Your task to perform on an android device: change the clock style Image 0: 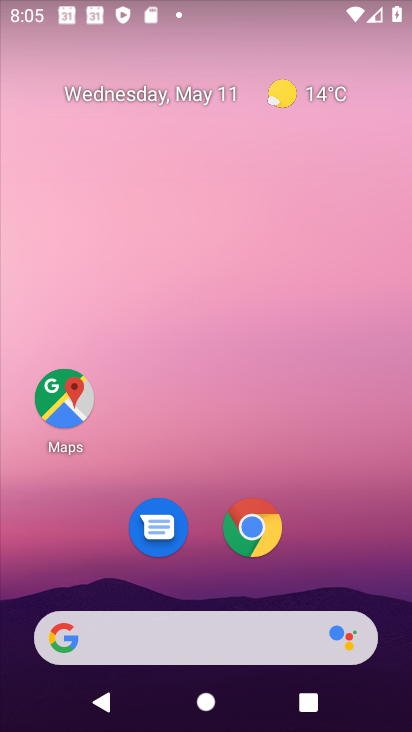
Step 0: drag from (204, 578) to (194, 42)
Your task to perform on an android device: change the clock style Image 1: 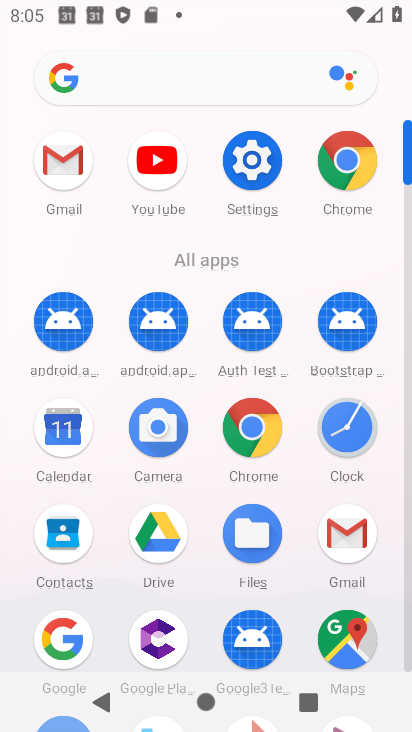
Step 1: click (345, 419)
Your task to perform on an android device: change the clock style Image 2: 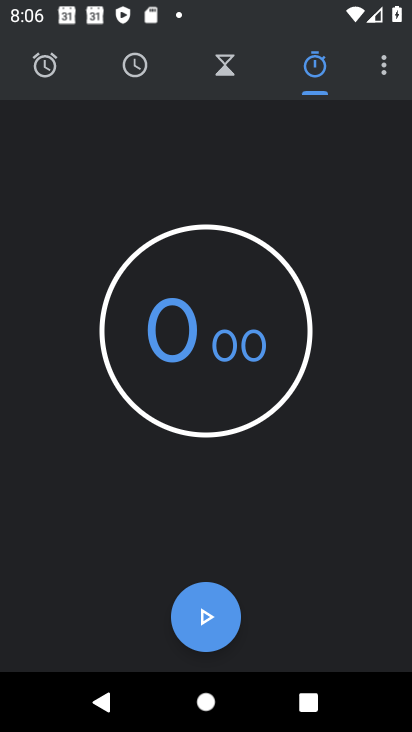
Step 2: click (376, 57)
Your task to perform on an android device: change the clock style Image 3: 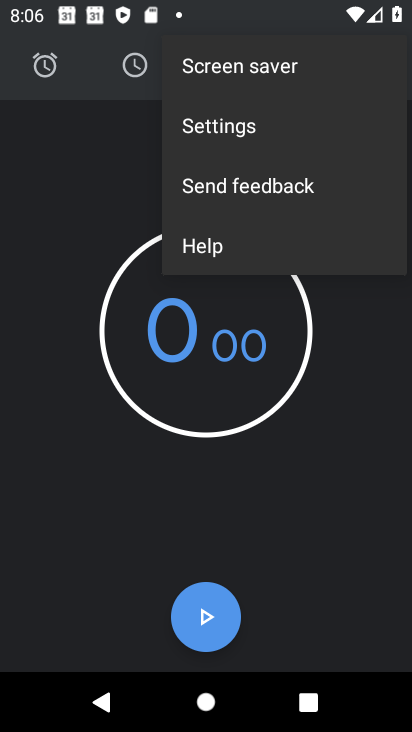
Step 3: click (229, 111)
Your task to perform on an android device: change the clock style Image 4: 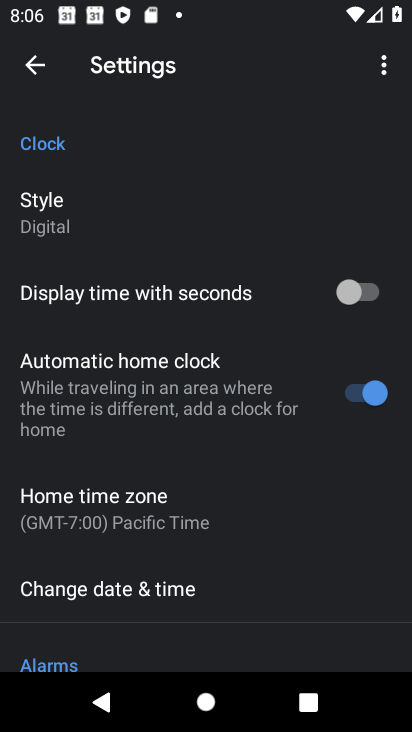
Step 4: click (95, 198)
Your task to perform on an android device: change the clock style Image 5: 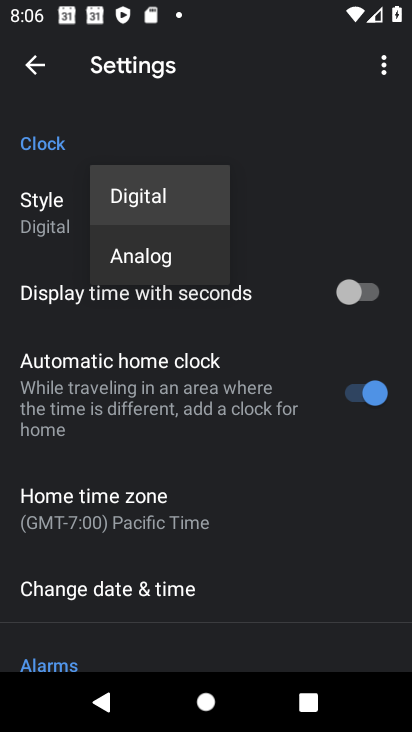
Step 5: click (153, 263)
Your task to perform on an android device: change the clock style Image 6: 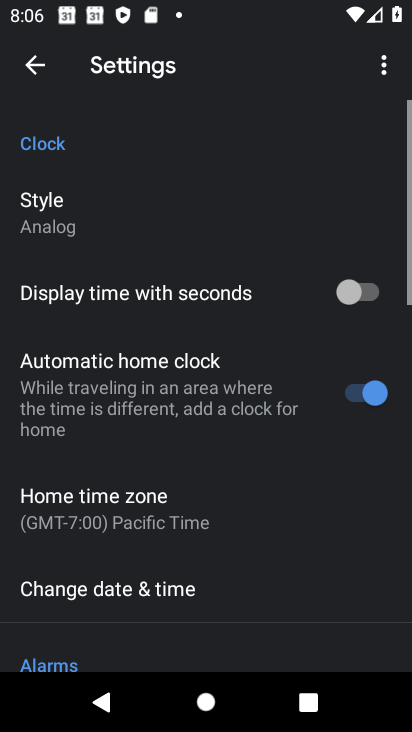
Step 6: task complete